Your task to perform on an android device: turn off notifications in google photos Image 0: 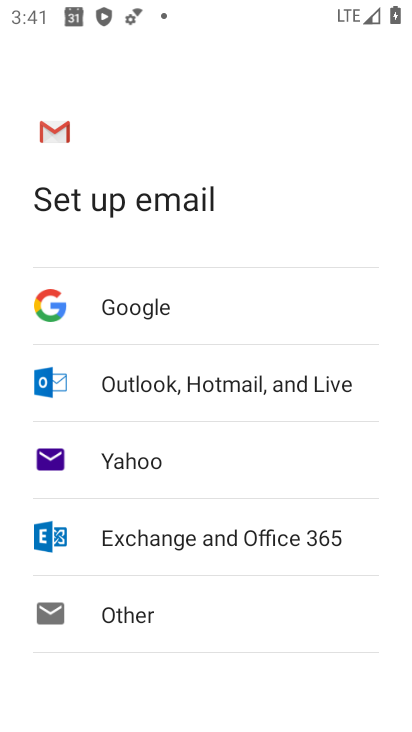
Step 0: press home button
Your task to perform on an android device: turn off notifications in google photos Image 1: 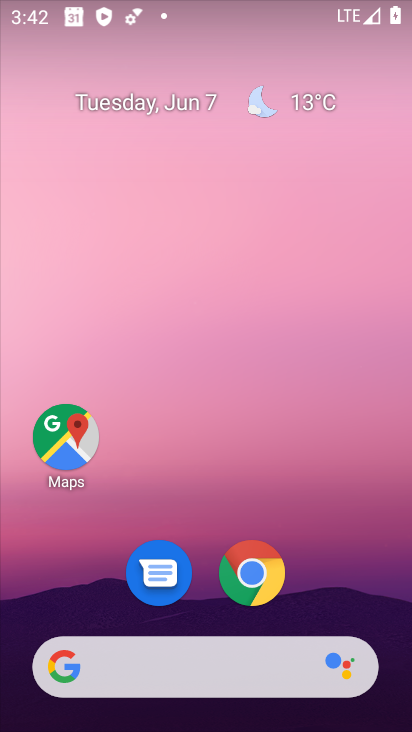
Step 1: drag from (392, 637) to (296, 212)
Your task to perform on an android device: turn off notifications in google photos Image 2: 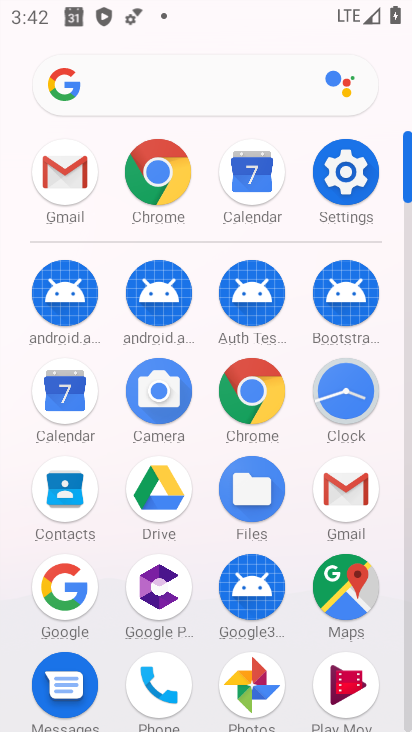
Step 2: click (263, 666)
Your task to perform on an android device: turn off notifications in google photos Image 3: 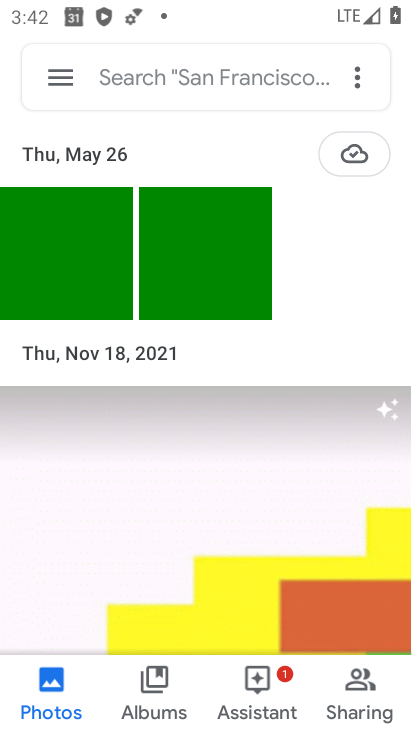
Step 3: click (49, 66)
Your task to perform on an android device: turn off notifications in google photos Image 4: 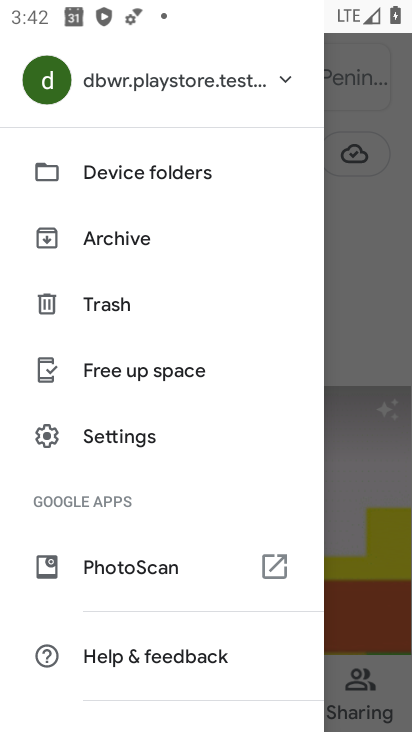
Step 4: click (149, 451)
Your task to perform on an android device: turn off notifications in google photos Image 5: 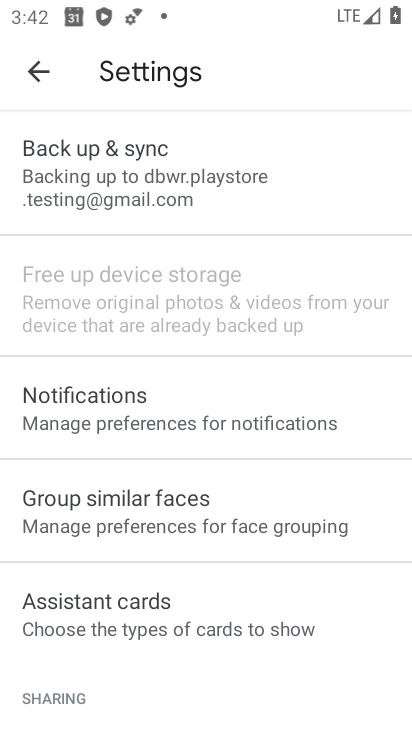
Step 5: click (182, 411)
Your task to perform on an android device: turn off notifications in google photos Image 6: 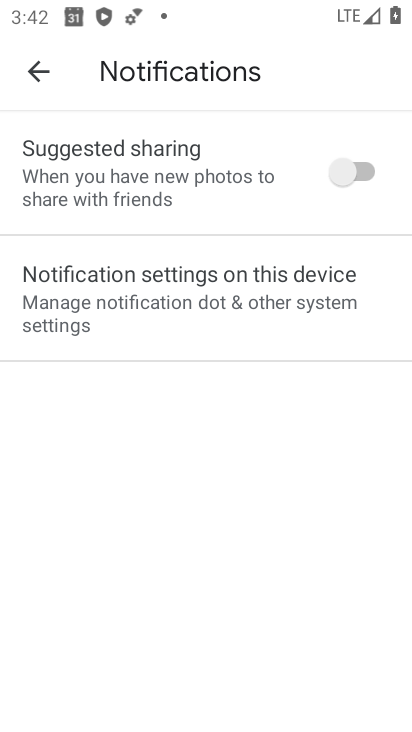
Step 6: click (202, 296)
Your task to perform on an android device: turn off notifications in google photos Image 7: 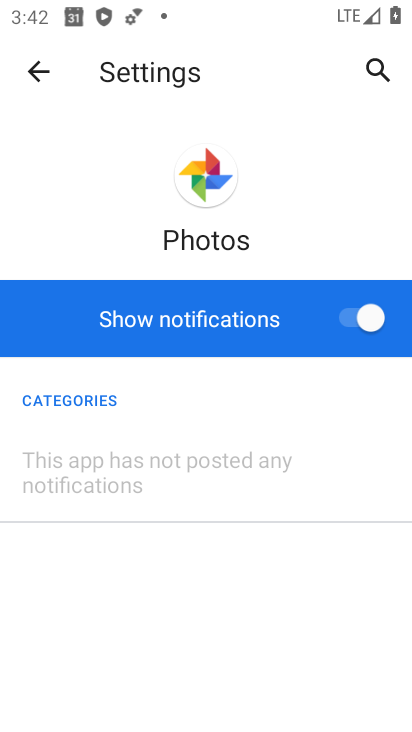
Step 7: click (356, 329)
Your task to perform on an android device: turn off notifications in google photos Image 8: 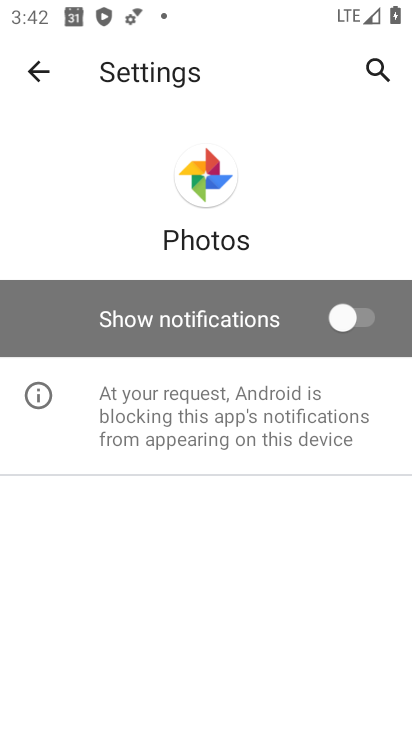
Step 8: task complete